Your task to perform on an android device: change the clock display to digital Image 0: 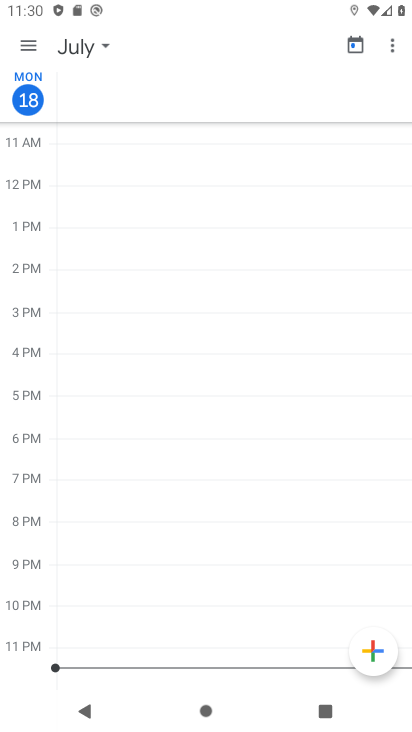
Step 0: press home button
Your task to perform on an android device: change the clock display to digital Image 1: 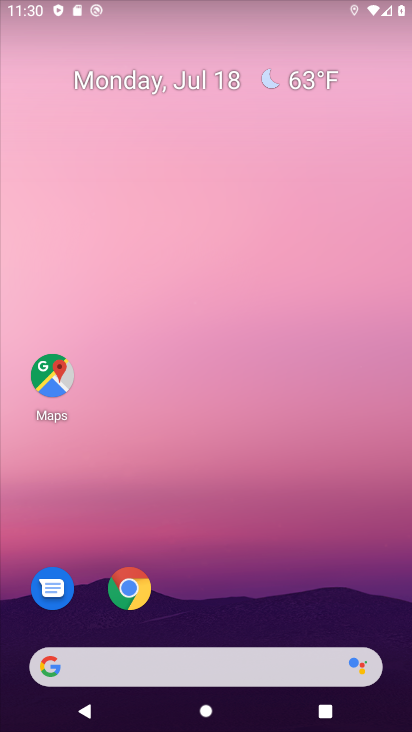
Step 1: drag from (275, 531) to (278, 75)
Your task to perform on an android device: change the clock display to digital Image 2: 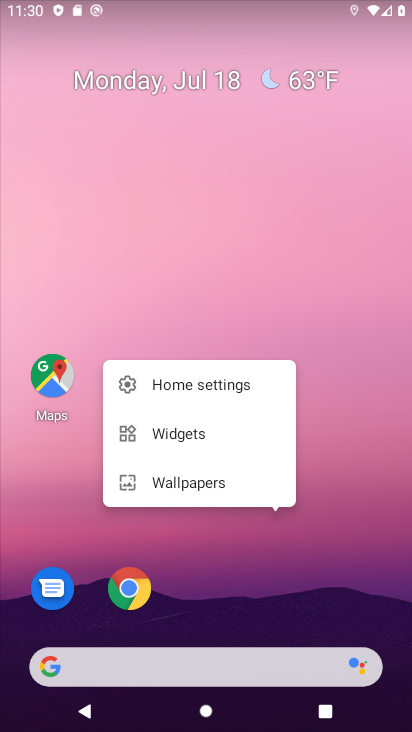
Step 2: click (370, 596)
Your task to perform on an android device: change the clock display to digital Image 3: 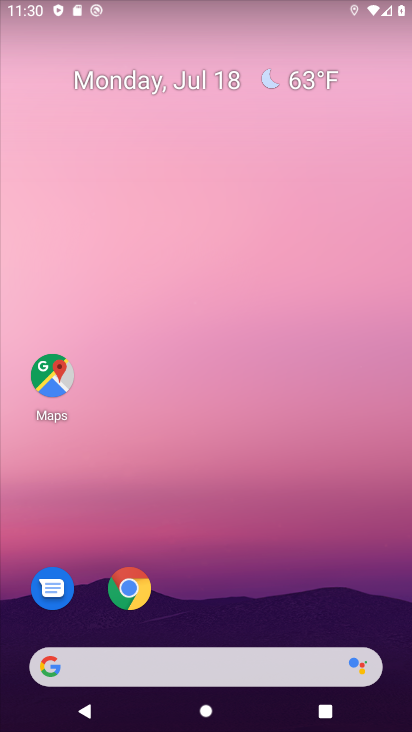
Step 3: drag from (295, 614) to (322, 85)
Your task to perform on an android device: change the clock display to digital Image 4: 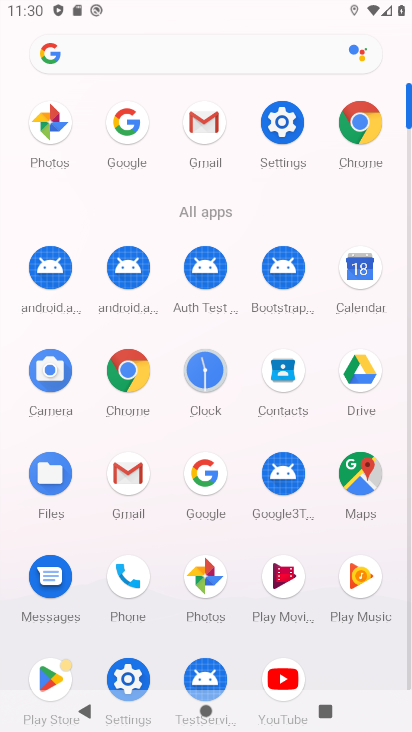
Step 4: click (205, 386)
Your task to perform on an android device: change the clock display to digital Image 5: 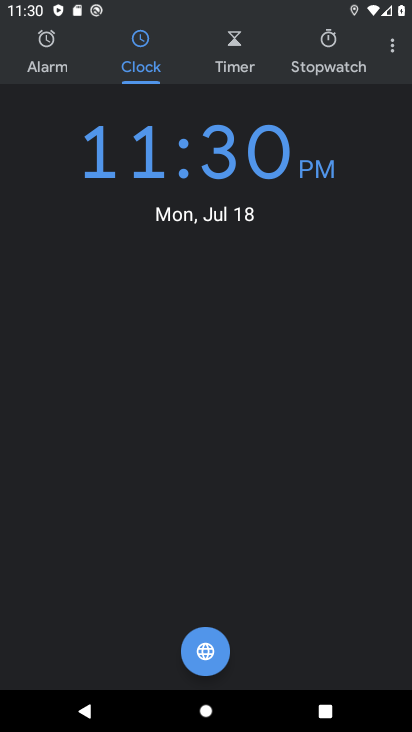
Step 5: click (384, 57)
Your task to perform on an android device: change the clock display to digital Image 6: 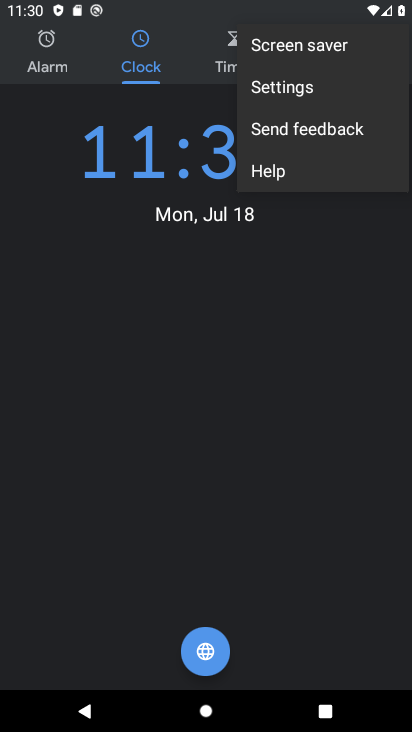
Step 6: click (310, 90)
Your task to perform on an android device: change the clock display to digital Image 7: 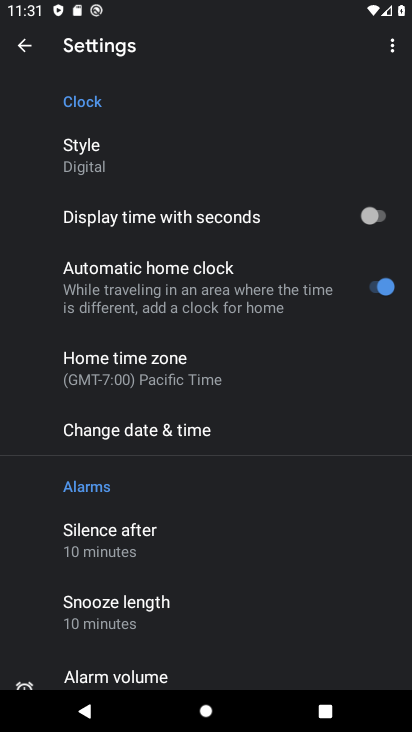
Step 7: task complete